Your task to perform on an android device: see creations saved in the google photos Image 0: 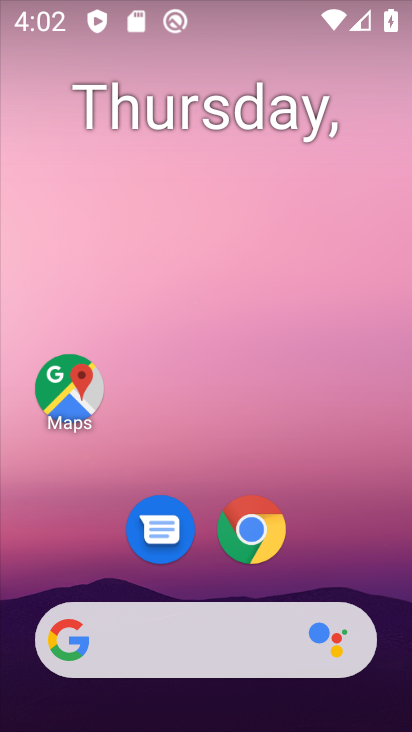
Step 0: drag from (210, 719) to (203, 225)
Your task to perform on an android device: see creations saved in the google photos Image 1: 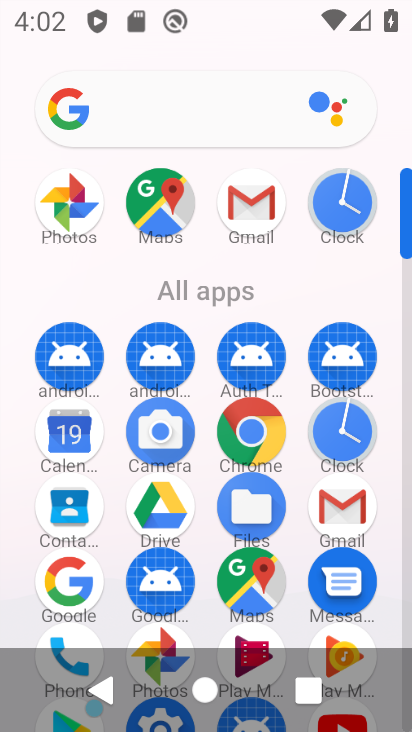
Step 1: click (75, 205)
Your task to perform on an android device: see creations saved in the google photos Image 2: 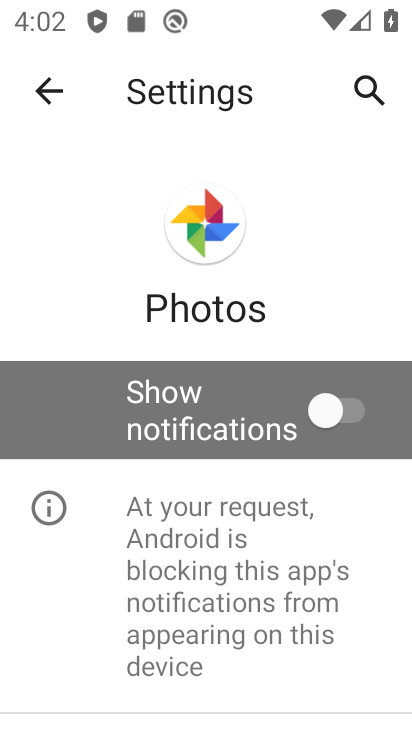
Step 2: click (43, 80)
Your task to perform on an android device: see creations saved in the google photos Image 3: 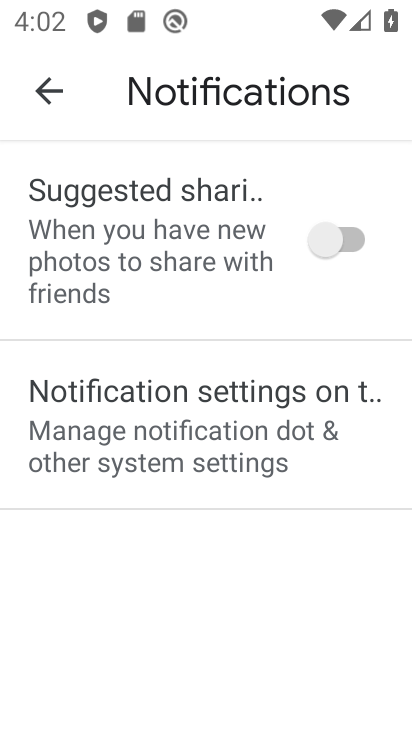
Step 3: click (46, 85)
Your task to perform on an android device: see creations saved in the google photos Image 4: 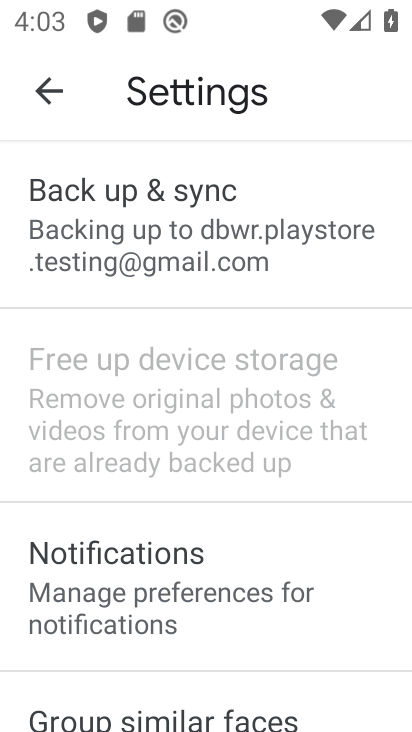
Step 4: click (43, 79)
Your task to perform on an android device: see creations saved in the google photos Image 5: 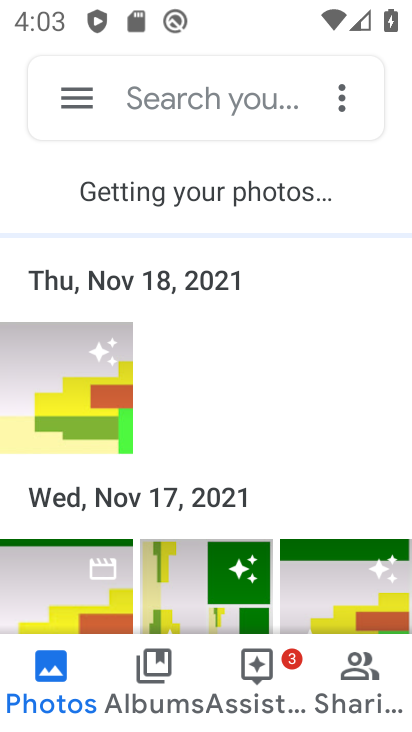
Step 5: click (197, 105)
Your task to perform on an android device: see creations saved in the google photos Image 6: 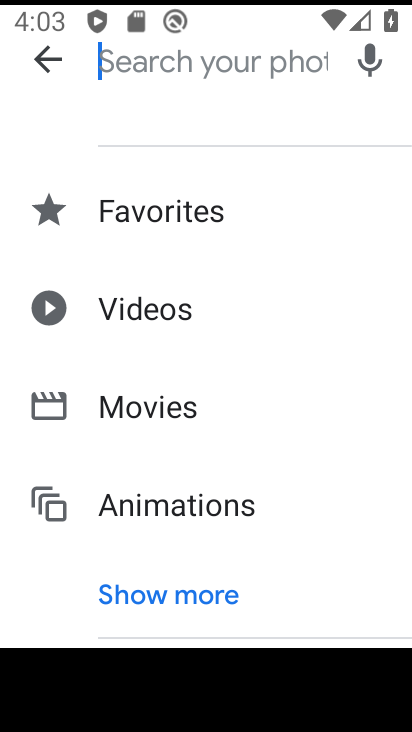
Step 6: click (135, 583)
Your task to perform on an android device: see creations saved in the google photos Image 7: 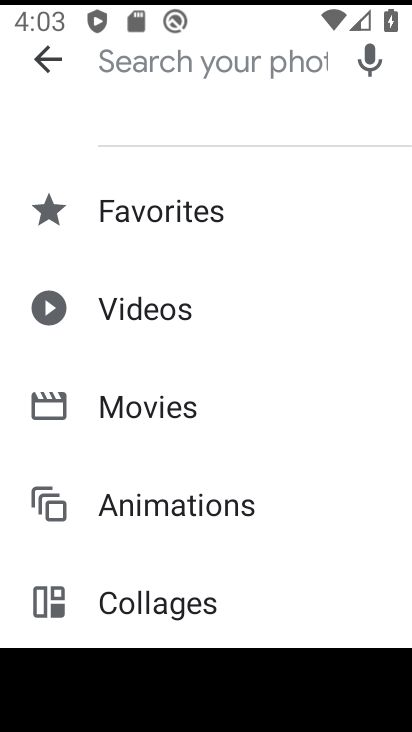
Step 7: drag from (154, 598) to (158, 243)
Your task to perform on an android device: see creations saved in the google photos Image 8: 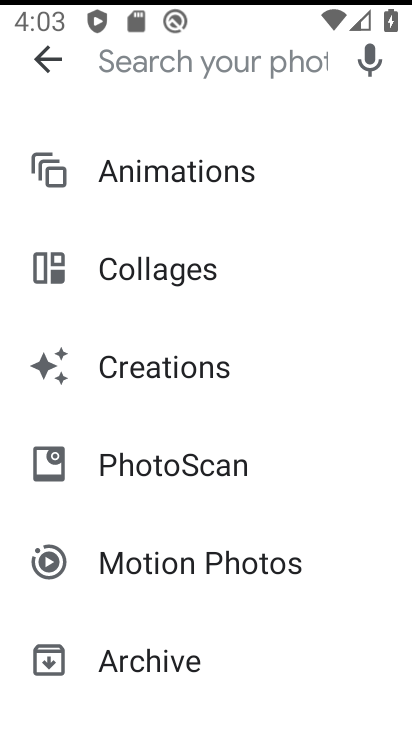
Step 8: click (164, 367)
Your task to perform on an android device: see creations saved in the google photos Image 9: 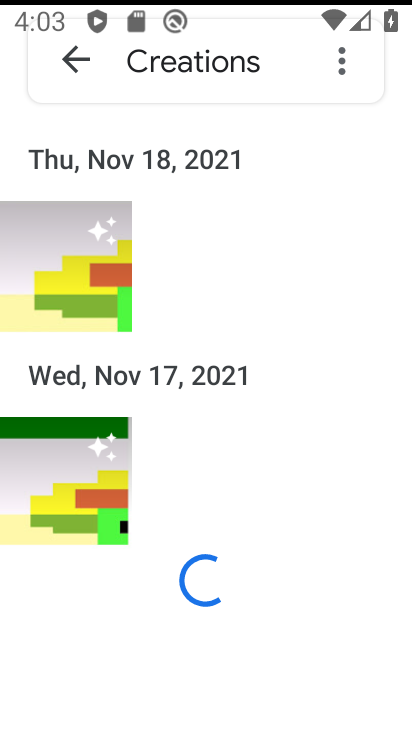
Step 9: task complete